Your task to perform on an android device: turn off translation in the chrome app Image 0: 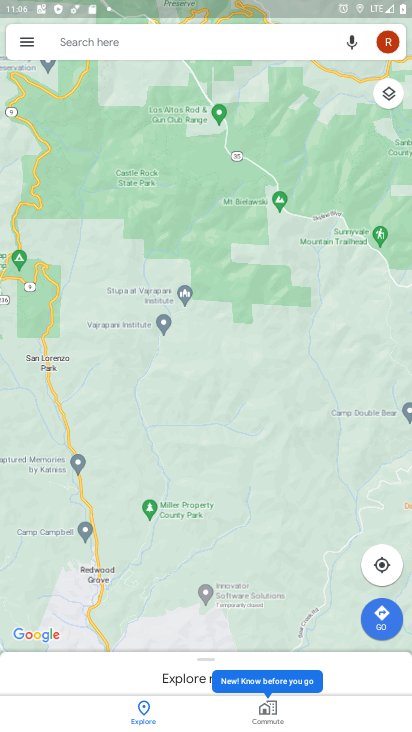
Step 0: click (231, 362)
Your task to perform on an android device: turn off translation in the chrome app Image 1: 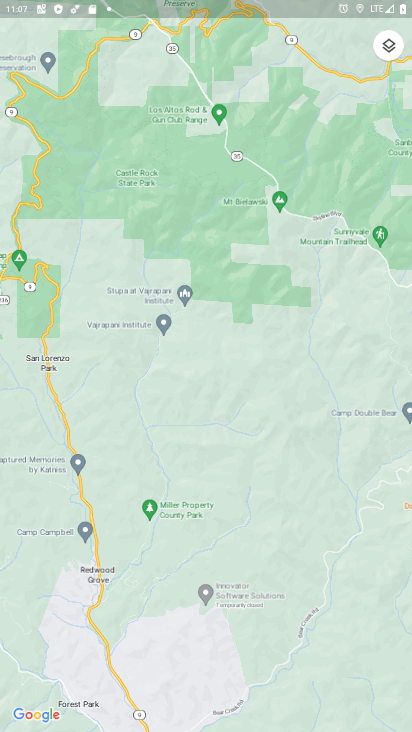
Step 1: drag from (173, 646) to (259, 241)
Your task to perform on an android device: turn off translation in the chrome app Image 2: 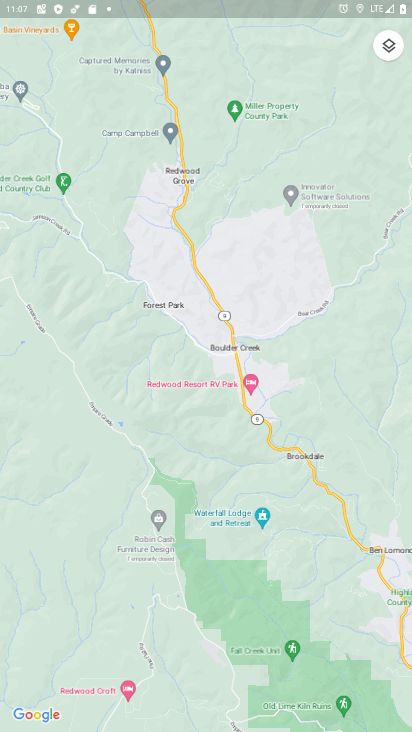
Step 2: press home button
Your task to perform on an android device: turn off translation in the chrome app Image 3: 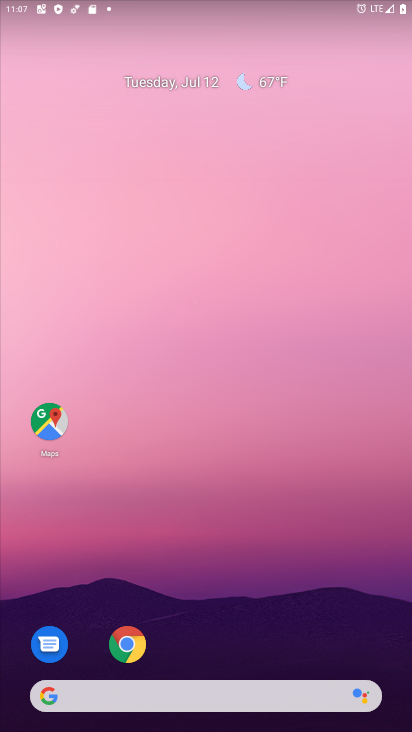
Step 3: drag from (189, 526) to (229, 201)
Your task to perform on an android device: turn off translation in the chrome app Image 4: 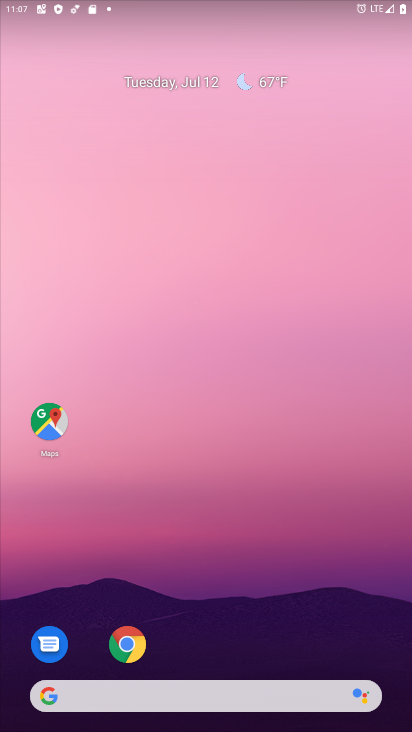
Step 4: drag from (209, 582) to (280, 140)
Your task to perform on an android device: turn off translation in the chrome app Image 5: 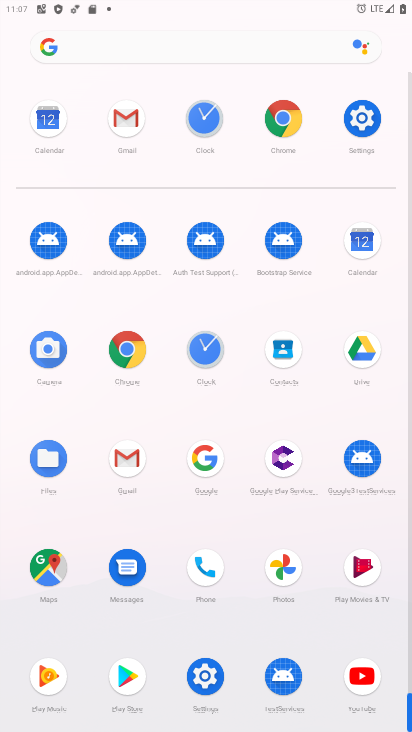
Step 5: click (126, 354)
Your task to perform on an android device: turn off translation in the chrome app Image 6: 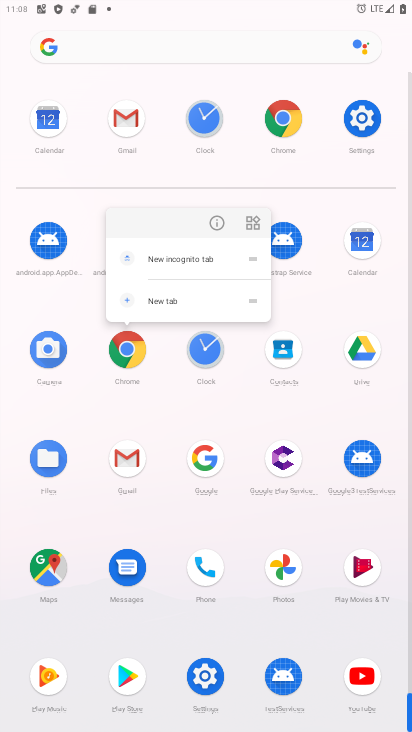
Step 6: click (210, 220)
Your task to perform on an android device: turn off translation in the chrome app Image 7: 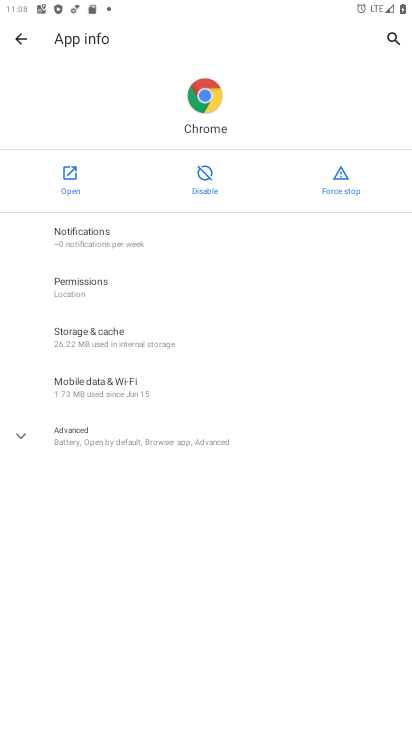
Step 7: click (63, 175)
Your task to perform on an android device: turn off translation in the chrome app Image 8: 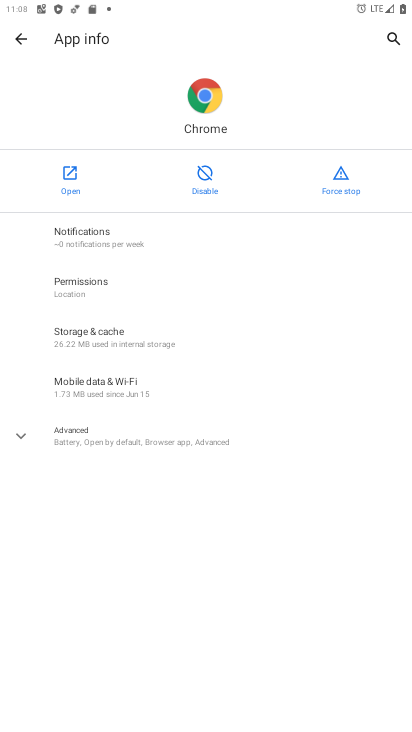
Step 8: click (63, 175)
Your task to perform on an android device: turn off translation in the chrome app Image 9: 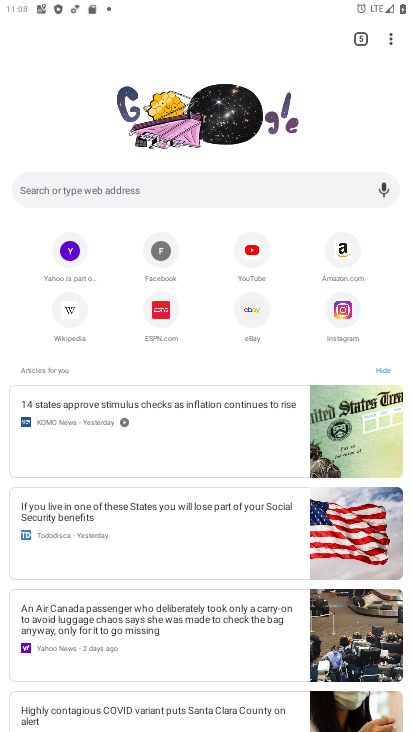
Step 9: click (387, 32)
Your task to perform on an android device: turn off translation in the chrome app Image 10: 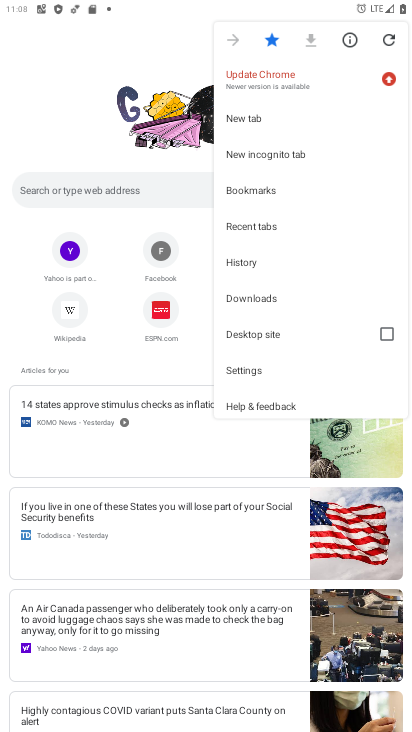
Step 10: click (264, 373)
Your task to perform on an android device: turn off translation in the chrome app Image 11: 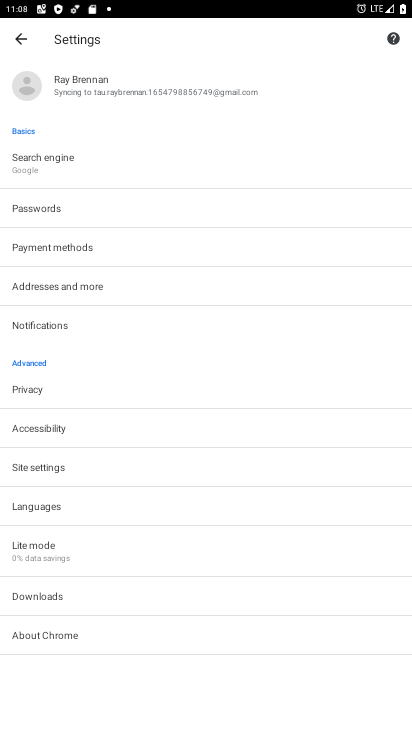
Step 11: click (114, 465)
Your task to perform on an android device: turn off translation in the chrome app Image 12: 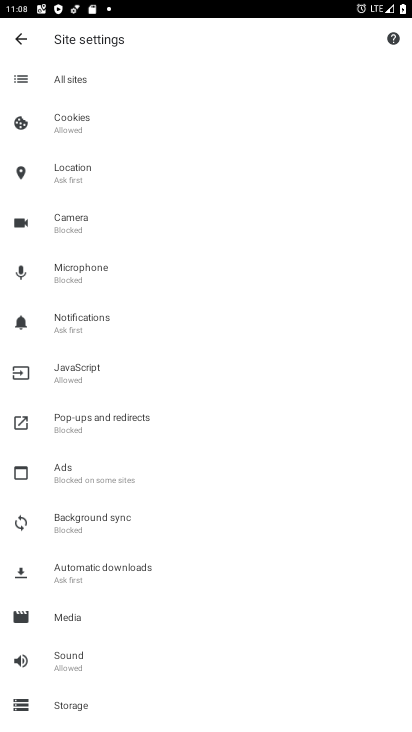
Step 12: click (20, 43)
Your task to perform on an android device: turn off translation in the chrome app Image 13: 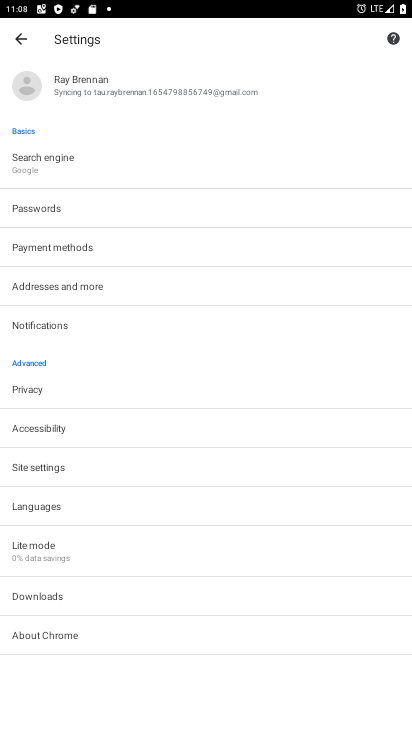
Step 13: click (82, 506)
Your task to perform on an android device: turn off translation in the chrome app Image 14: 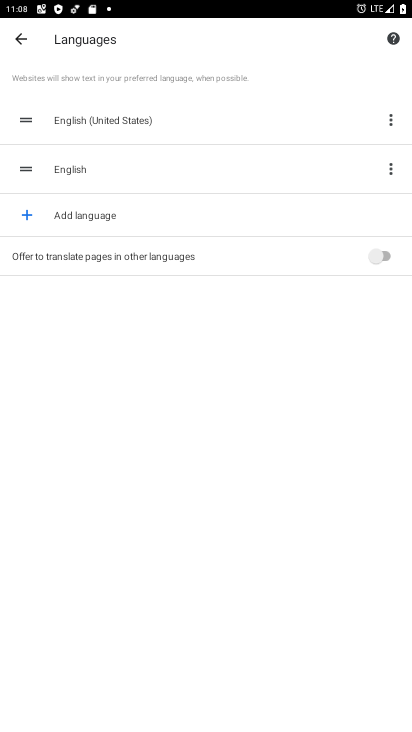
Step 14: click (352, 254)
Your task to perform on an android device: turn off translation in the chrome app Image 15: 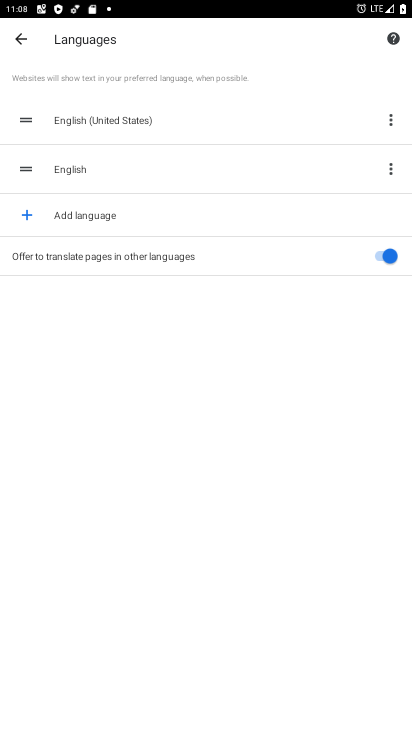
Step 15: click (355, 255)
Your task to perform on an android device: turn off translation in the chrome app Image 16: 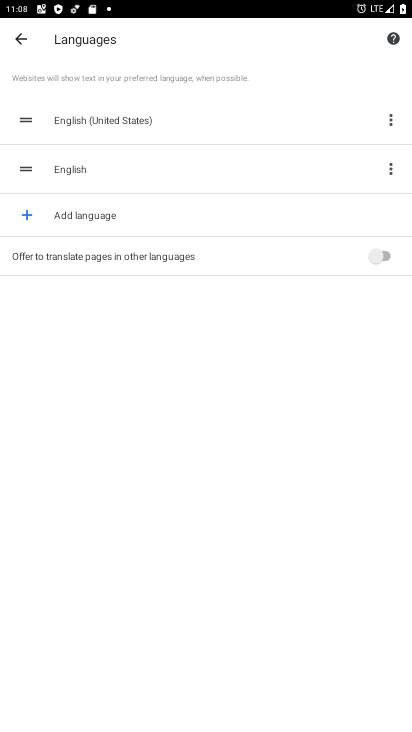
Step 16: task complete